Your task to perform on an android device: turn off data saver in the chrome app Image 0: 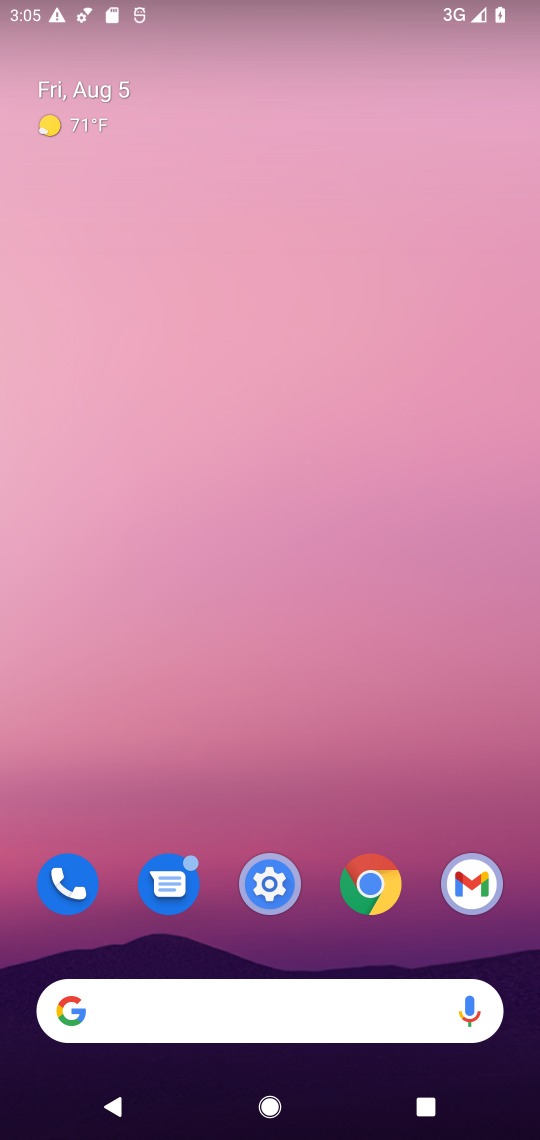
Step 0: drag from (511, 936) to (357, 21)
Your task to perform on an android device: turn off data saver in the chrome app Image 1: 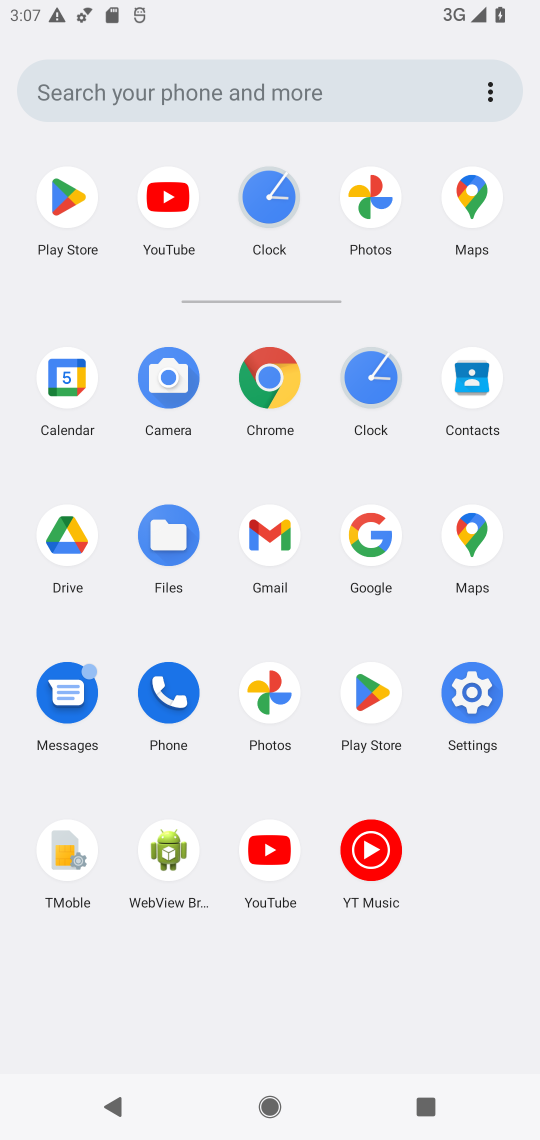
Step 1: click (278, 390)
Your task to perform on an android device: turn off data saver in the chrome app Image 2: 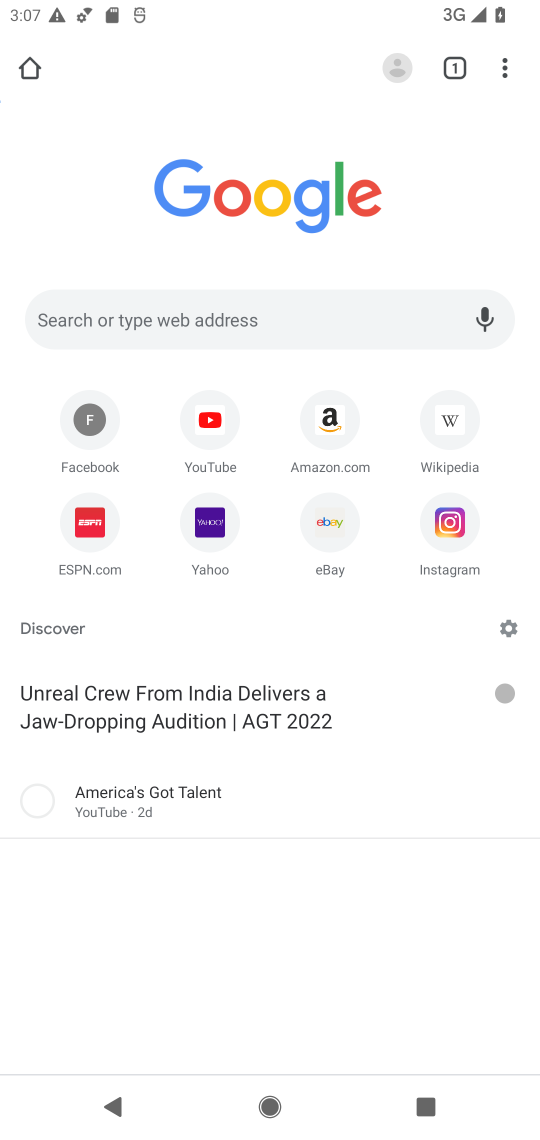
Step 2: click (278, 390)
Your task to perform on an android device: turn off data saver in the chrome app Image 3: 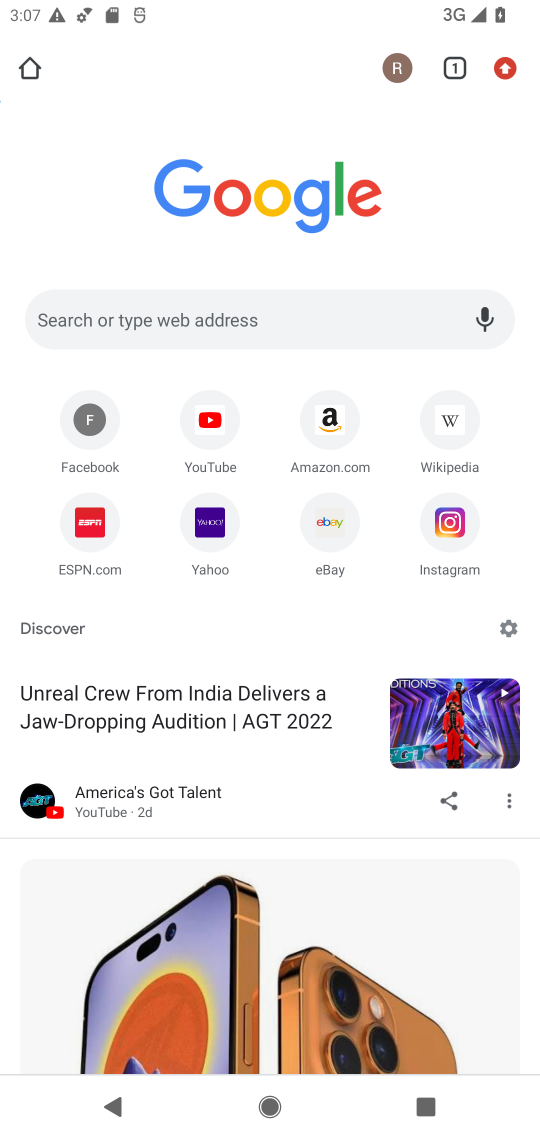
Step 3: click (509, 70)
Your task to perform on an android device: turn off data saver in the chrome app Image 4: 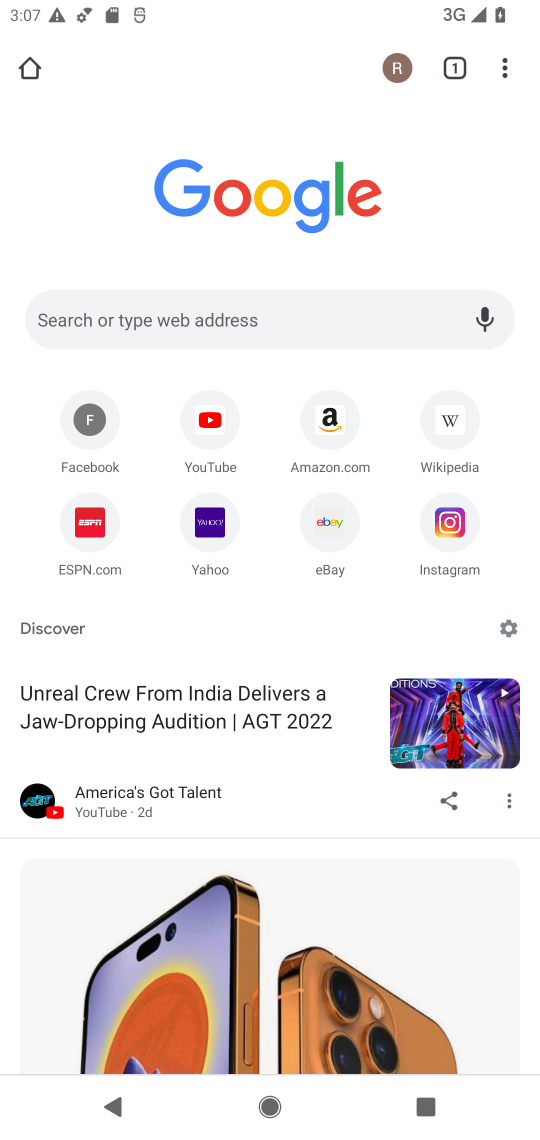
Step 4: click (505, 63)
Your task to perform on an android device: turn off data saver in the chrome app Image 5: 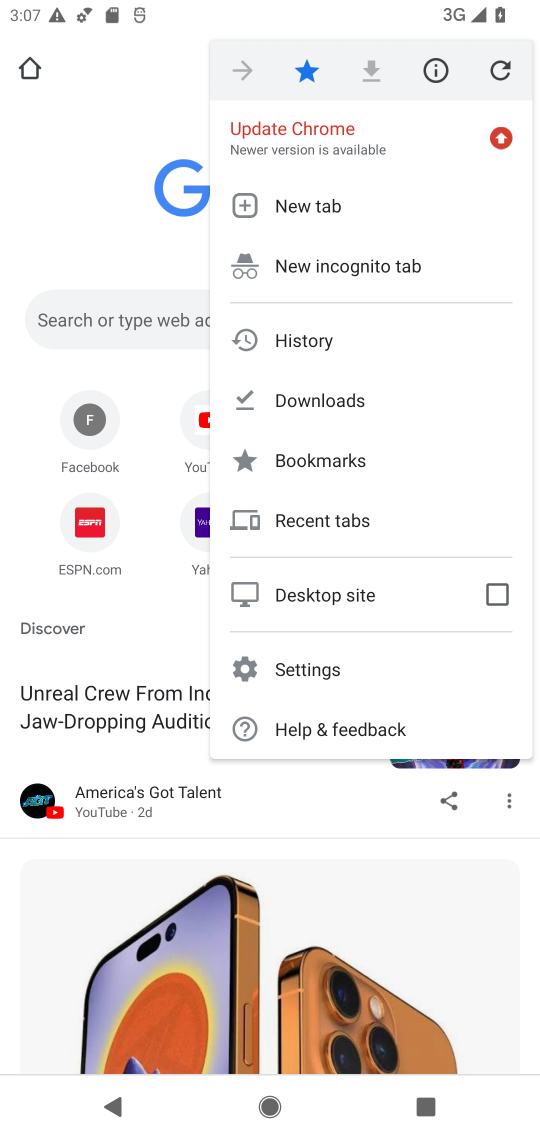
Step 5: click (275, 658)
Your task to perform on an android device: turn off data saver in the chrome app Image 6: 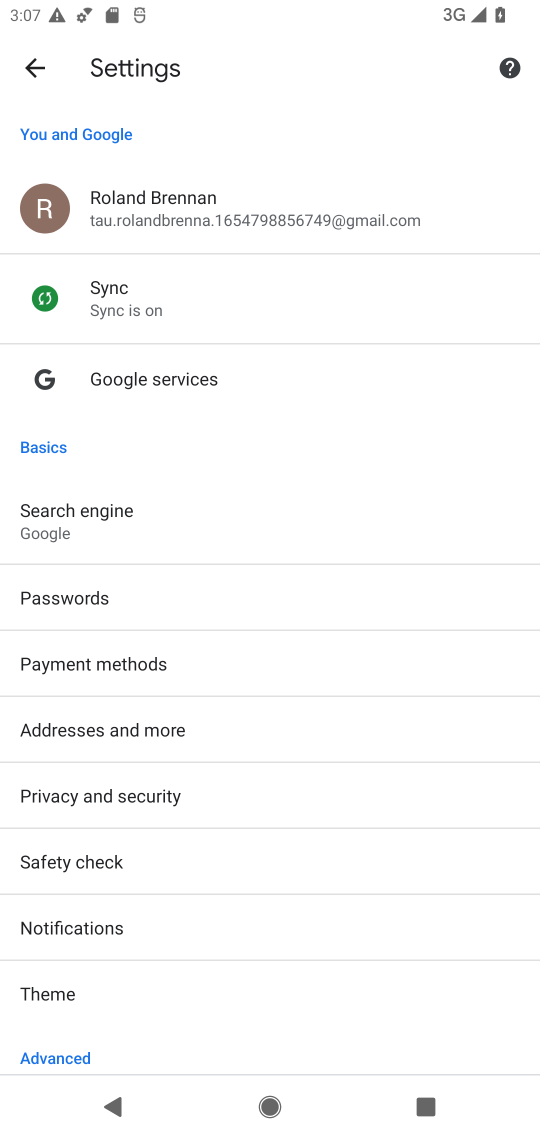
Step 6: drag from (139, 1033) to (100, 214)
Your task to perform on an android device: turn off data saver in the chrome app Image 7: 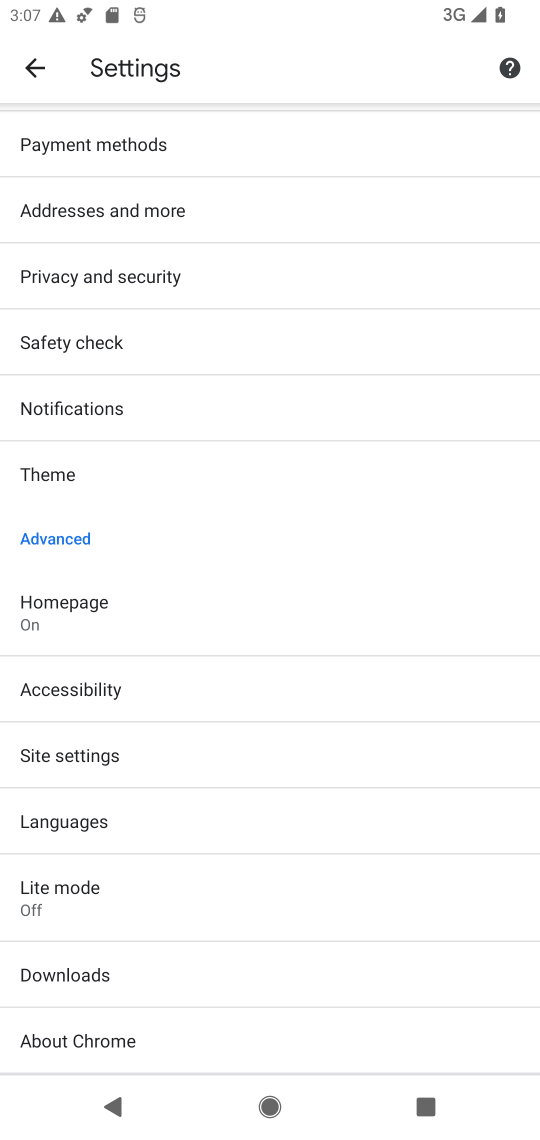
Step 7: click (102, 914)
Your task to perform on an android device: turn off data saver in the chrome app Image 8: 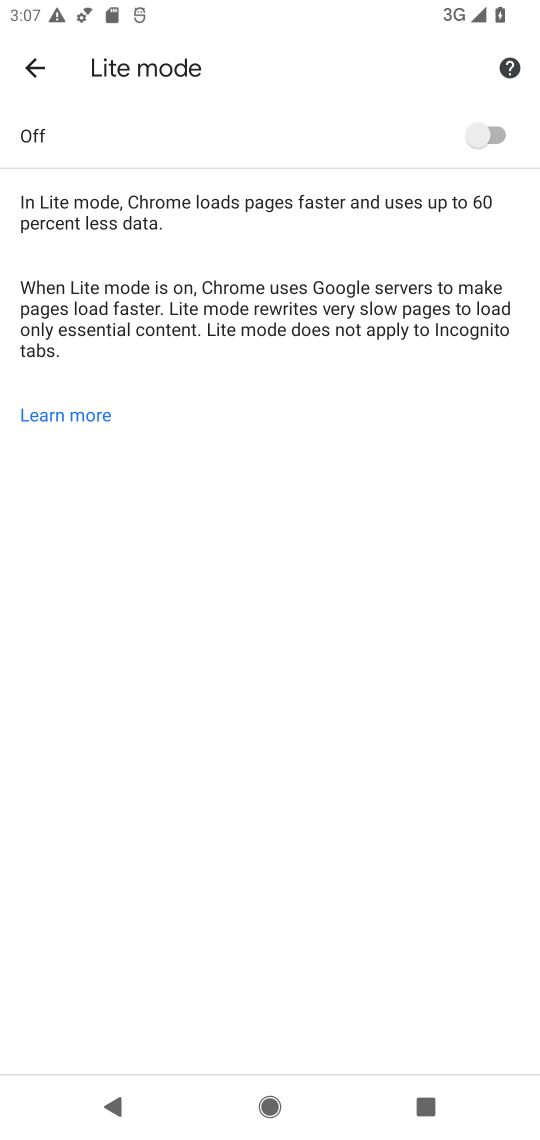
Step 8: task complete